Your task to perform on an android device: Open battery settings Image 0: 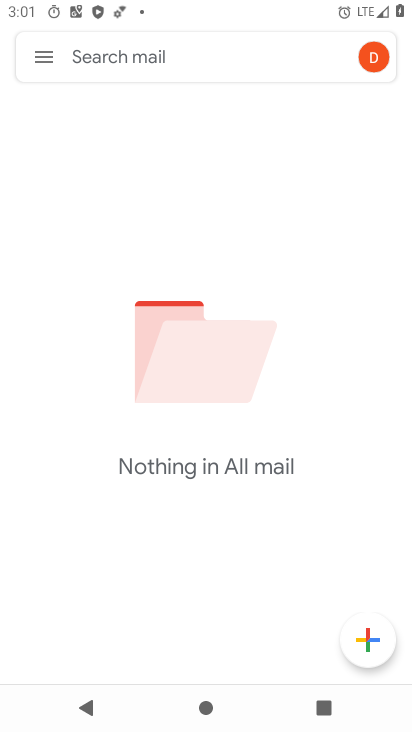
Step 0: drag from (250, 605) to (248, 536)
Your task to perform on an android device: Open battery settings Image 1: 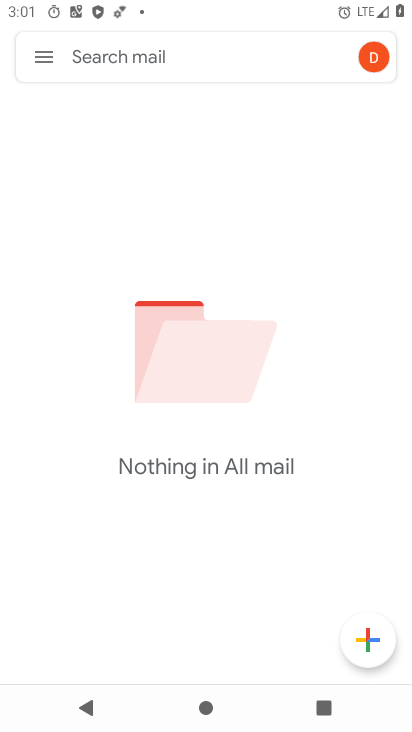
Step 1: press home button
Your task to perform on an android device: Open battery settings Image 2: 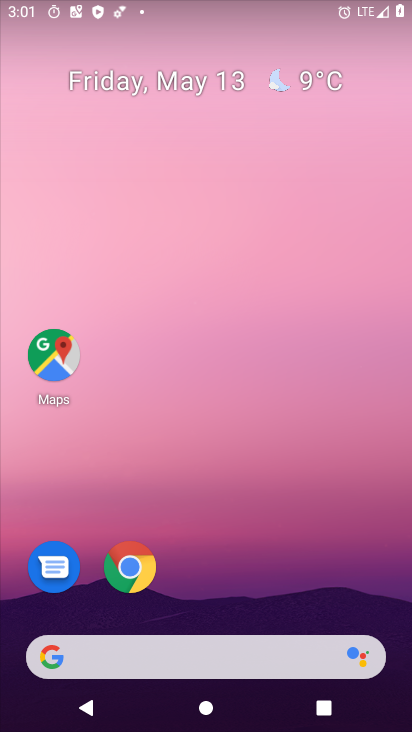
Step 2: drag from (218, 595) to (113, 0)
Your task to perform on an android device: Open battery settings Image 3: 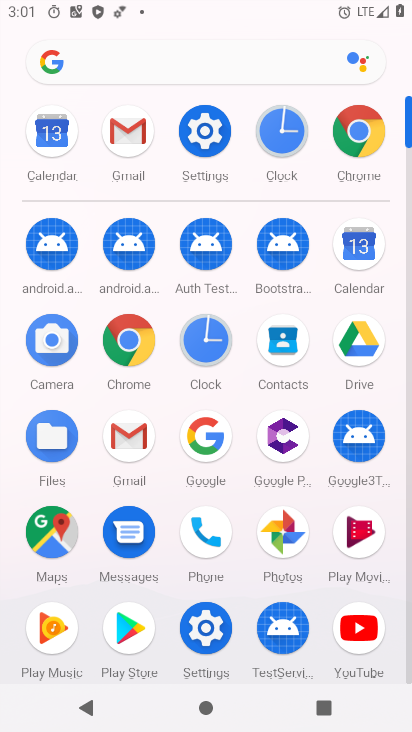
Step 3: click (206, 608)
Your task to perform on an android device: Open battery settings Image 4: 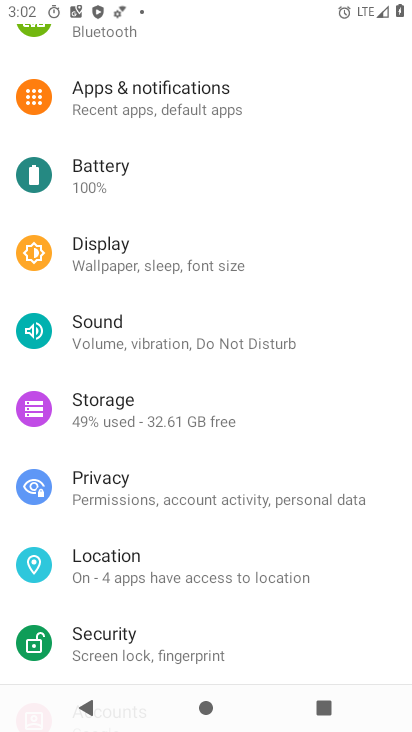
Step 4: click (147, 184)
Your task to perform on an android device: Open battery settings Image 5: 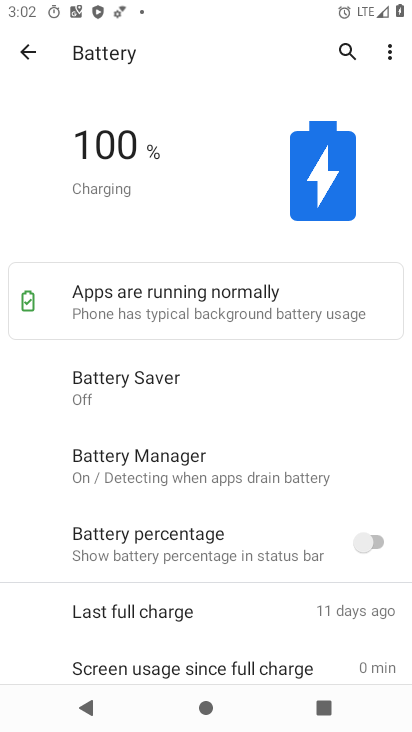
Step 5: task complete